Your task to perform on an android device: turn notification dots on Image 0: 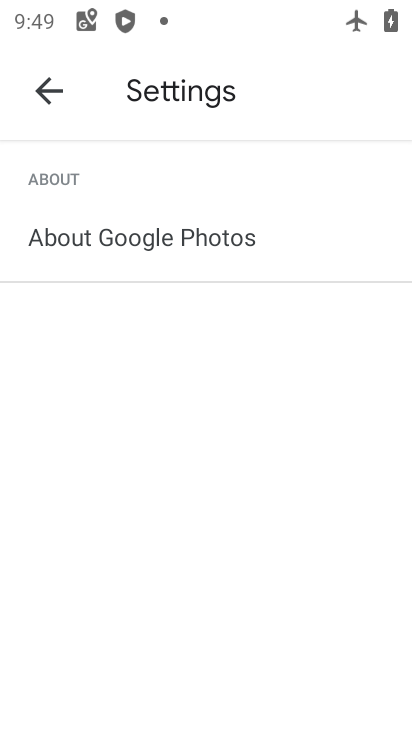
Step 0: press home button
Your task to perform on an android device: turn notification dots on Image 1: 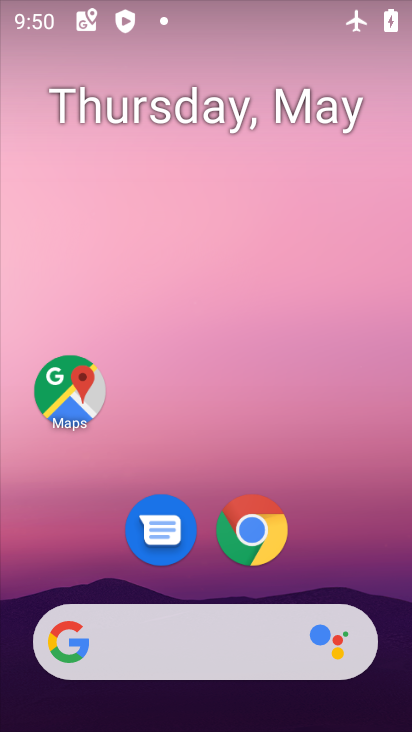
Step 1: drag from (216, 688) to (262, 277)
Your task to perform on an android device: turn notification dots on Image 2: 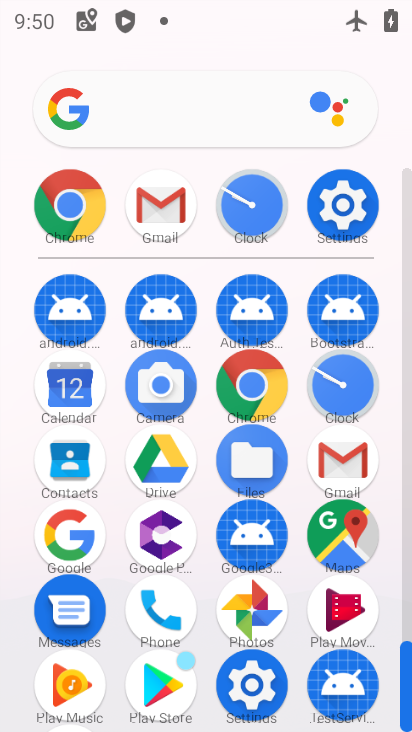
Step 2: click (354, 216)
Your task to perform on an android device: turn notification dots on Image 3: 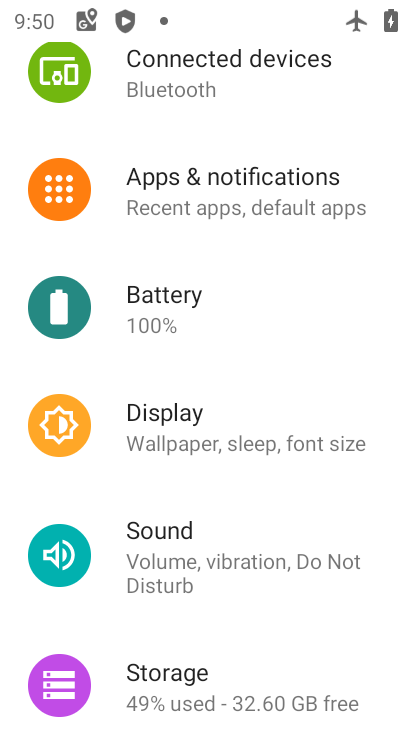
Step 3: click (258, 212)
Your task to perform on an android device: turn notification dots on Image 4: 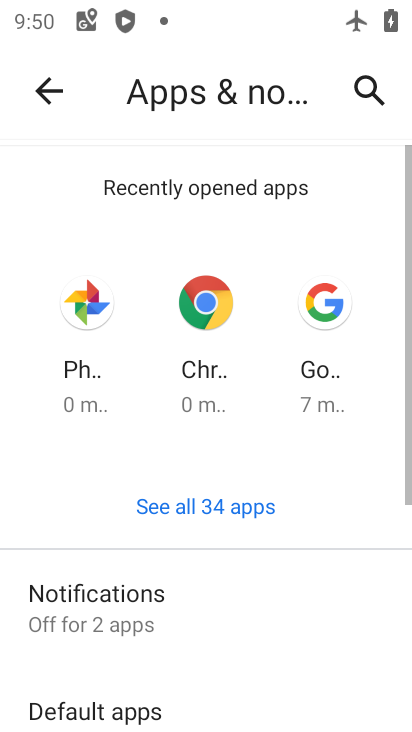
Step 4: click (169, 606)
Your task to perform on an android device: turn notification dots on Image 5: 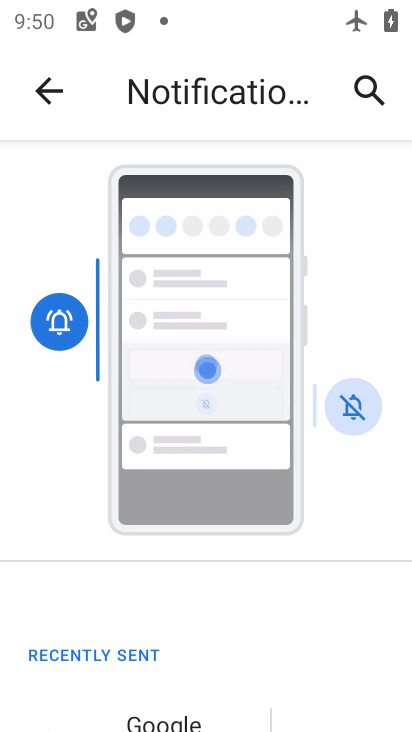
Step 5: drag from (279, 607) to (332, 0)
Your task to perform on an android device: turn notification dots on Image 6: 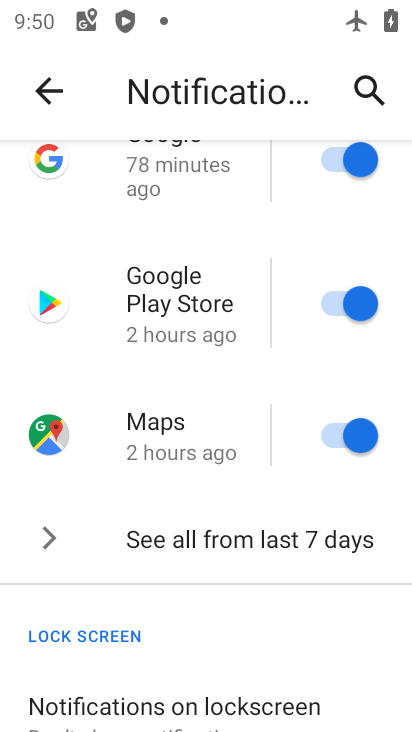
Step 6: drag from (217, 633) to (280, 193)
Your task to perform on an android device: turn notification dots on Image 7: 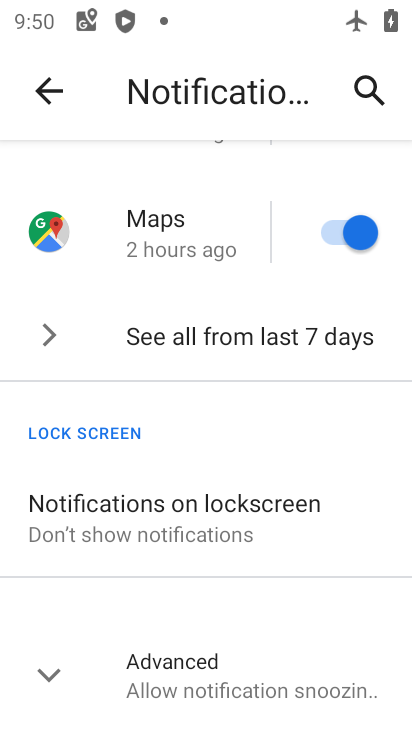
Step 7: click (300, 677)
Your task to perform on an android device: turn notification dots on Image 8: 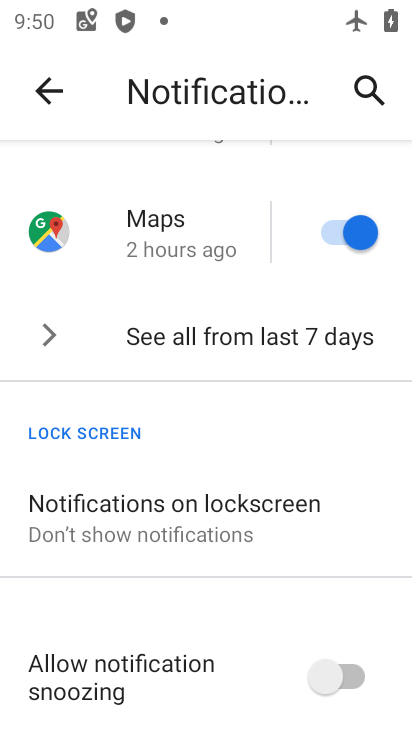
Step 8: task complete